Your task to perform on an android device: What's the weather? Image 0: 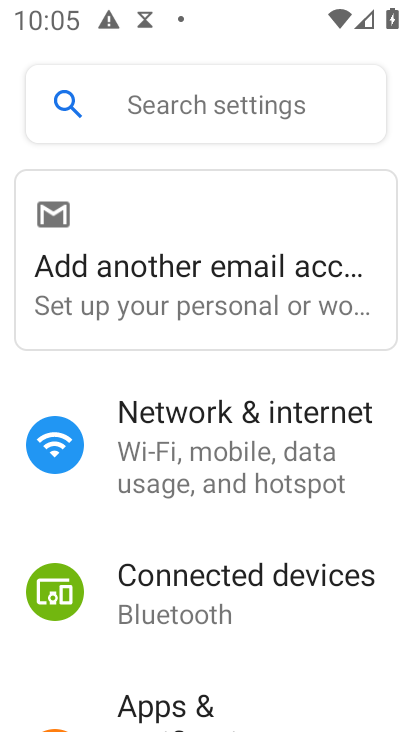
Step 0: press home button
Your task to perform on an android device: What's the weather? Image 1: 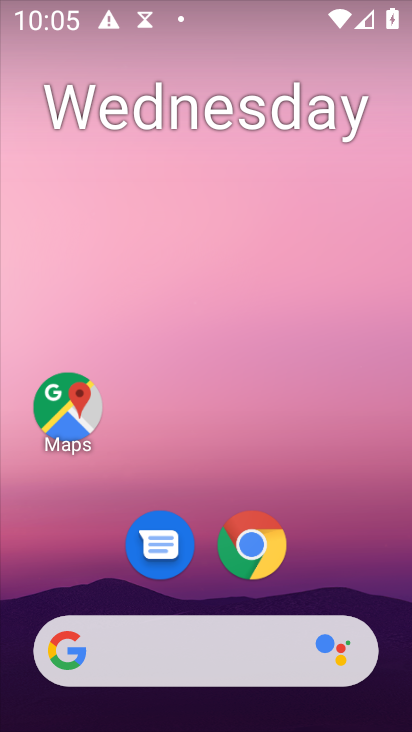
Step 1: click (175, 645)
Your task to perform on an android device: What's the weather? Image 2: 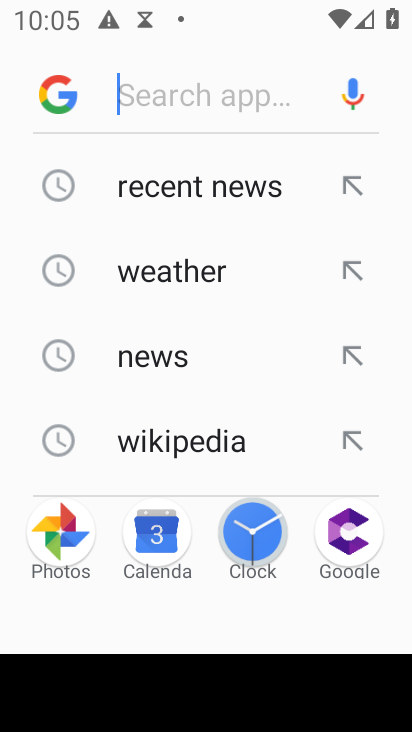
Step 2: type "what's the weather"
Your task to perform on an android device: What's the weather? Image 3: 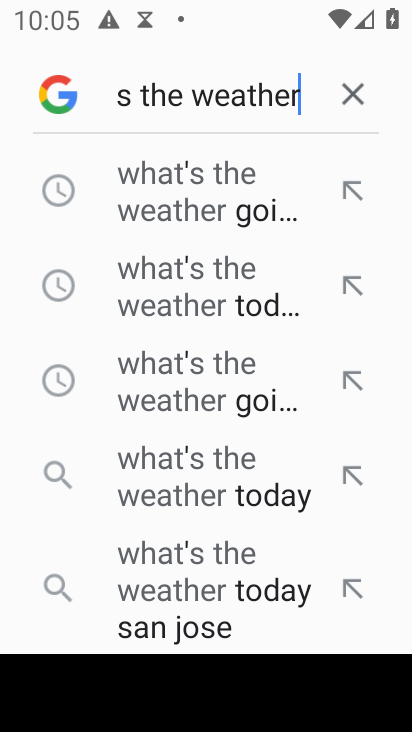
Step 3: click (223, 461)
Your task to perform on an android device: What's the weather? Image 4: 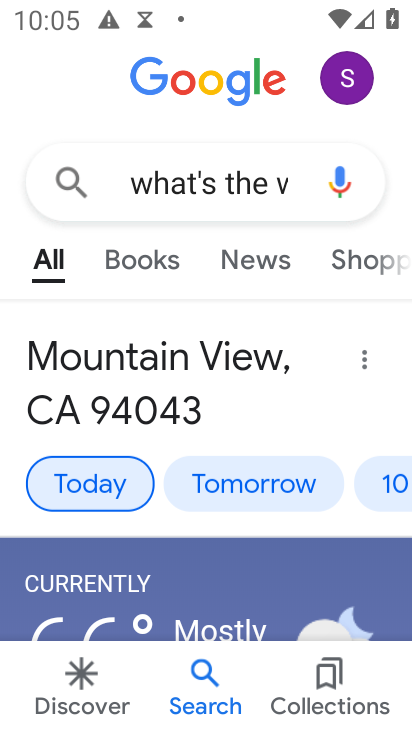
Step 4: task complete